Your task to perform on an android device: check the backup settings in the google photos Image 0: 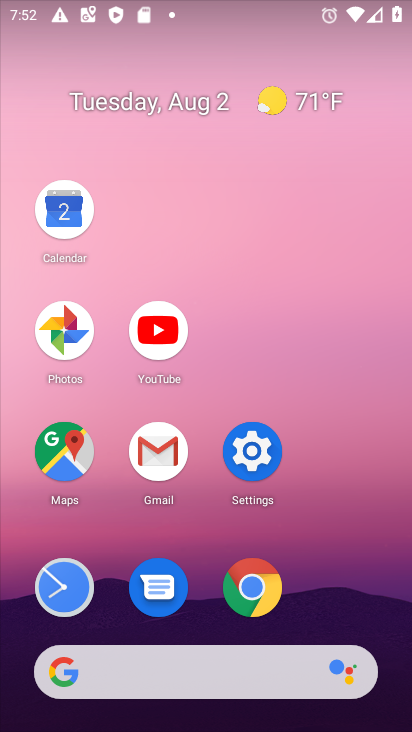
Step 0: click (61, 342)
Your task to perform on an android device: check the backup settings in the google photos Image 1: 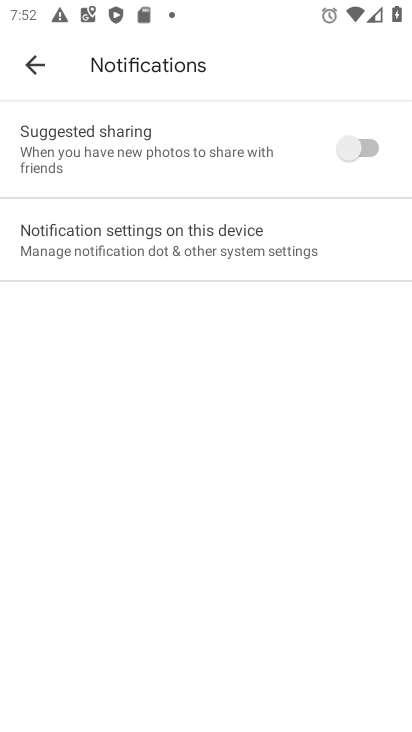
Step 1: click (30, 57)
Your task to perform on an android device: check the backup settings in the google photos Image 2: 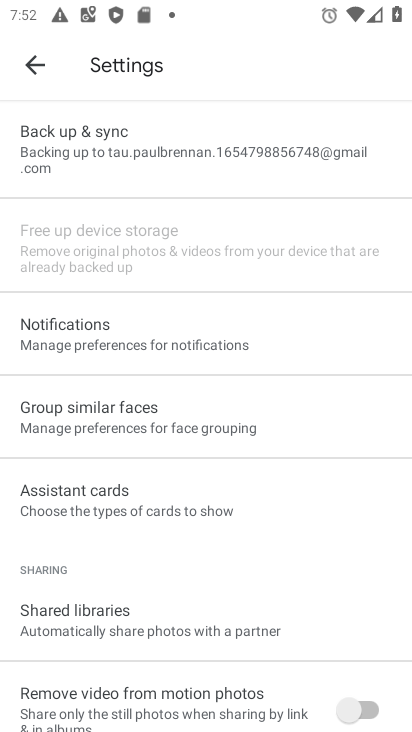
Step 2: click (36, 64)
Your task to perform on an android device: check the backup settings in the google photos Image 3: 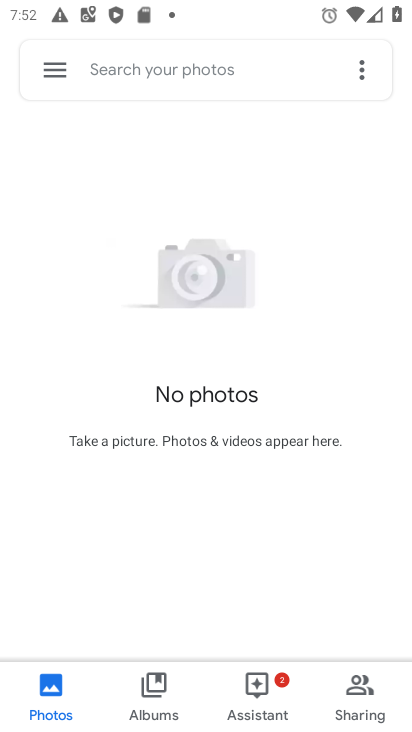
Step 3: click (50, 64)
Your task to perform on an android device: check the backup settings in the google photos Image 4: 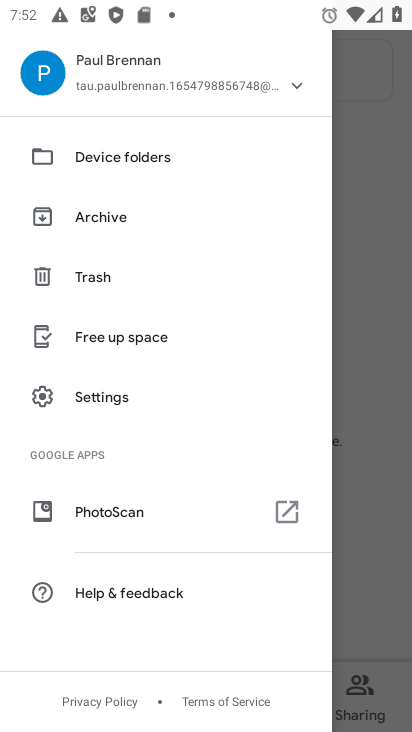
Step 4: click (109, 396)
Your task to perform on an android device: check the backup settings in the google photos Image 5: 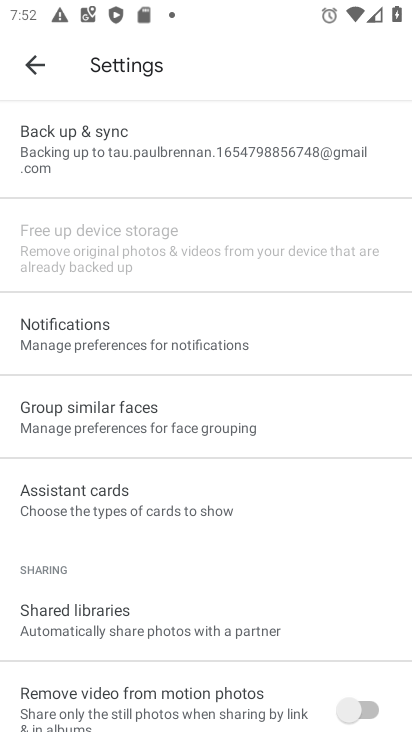
Step 5: click (105, 148)
Your task to perform on an android device: check the backup settings in the google photos Image 6: 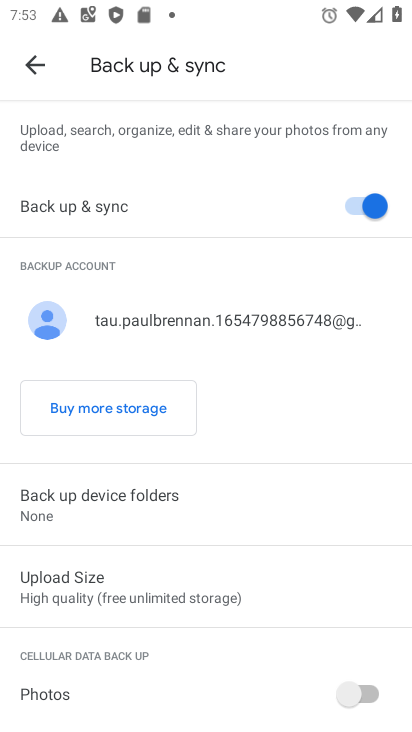
Step 6: task complete